Your task to perform on an android device: allow notifications from all sites in the chrome app Image 0: 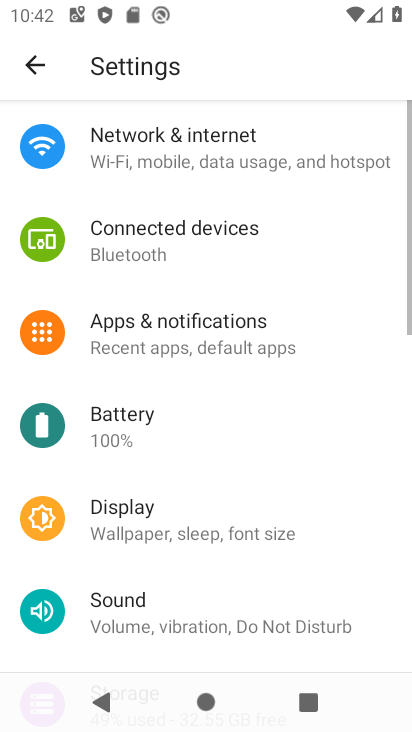
Step 0: drag from (193, 573) to (330, 40)
Your task to perform on an android device: allow notifications from all sites in the chrome app Image 1: 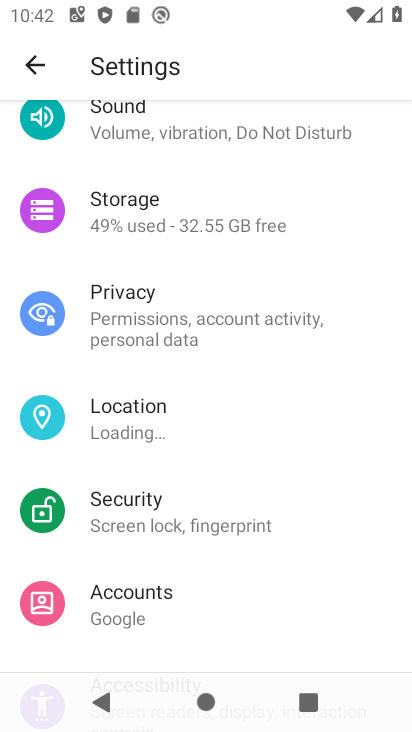
Step 1: click (145, 226)
Your task to perform on an android device: allow notifications from all sites in the chrome app Image 2: 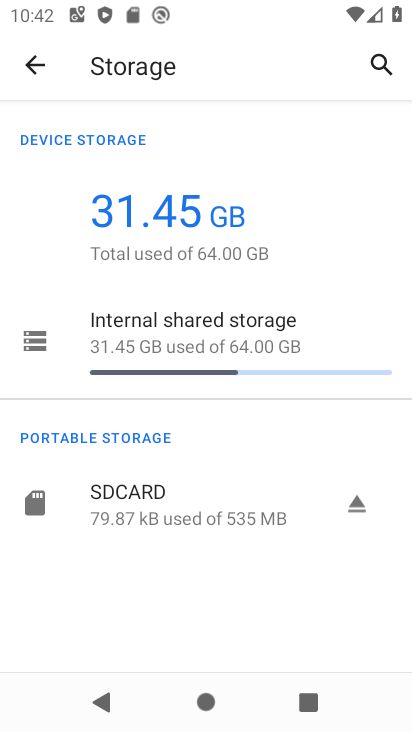
Step 2: press back button
Your task to perform on an android device: allow notifications from all sites in the chrome app Image 3: 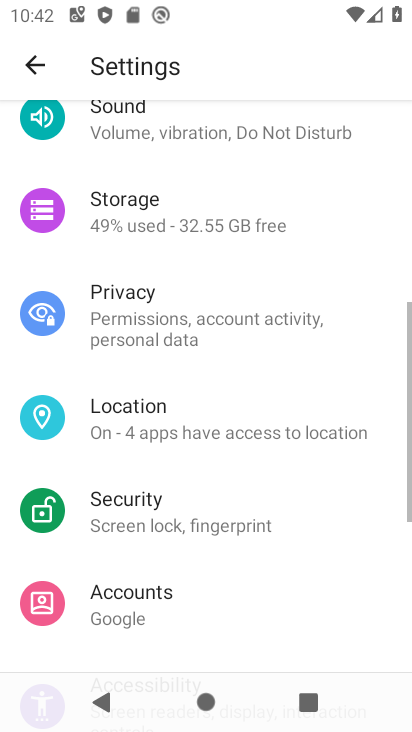
Step 3: press back button
Your task to perform on an android device: allow notifications from all sites in the chrome app Image 4: 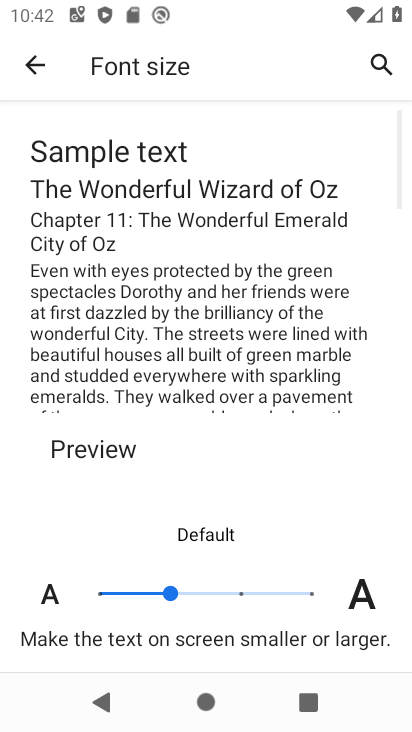
Step 4: press back button
Your task to perform on an android device: allow notifications from all sites in the chrome app Image 5: 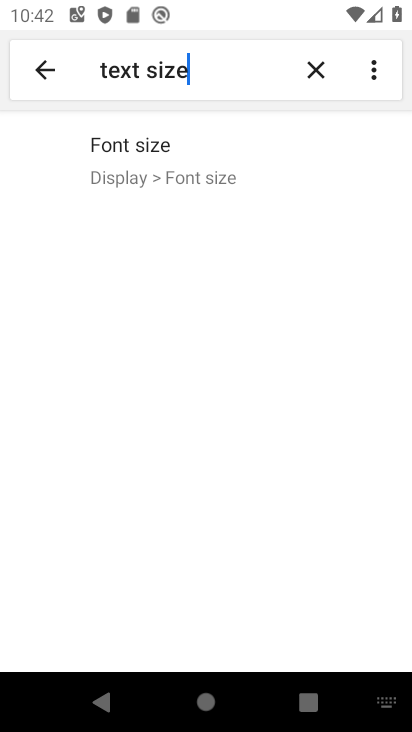
Step 5: press back button
Your task to perform on an android device: allow notifications from all sites in the chrome app Image 6: 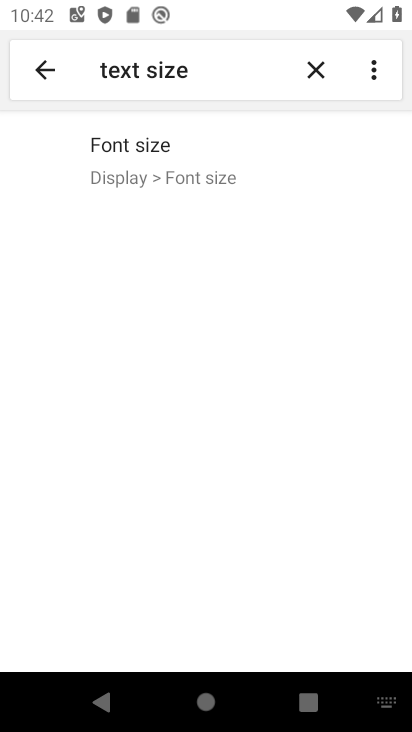
Step 6: press back button
Your task to perform on an android device: allow notifications from all sites in the chrome app Image 7: 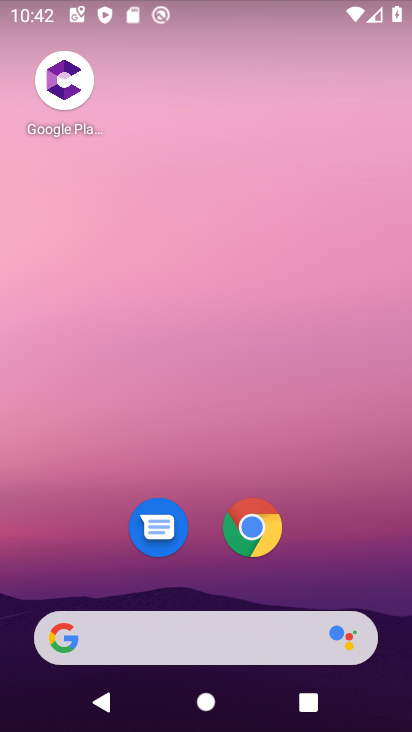
Step 7: click (249, 531)
Your task to perform on an android device: allow notifications from all sites in the chrome app Image 8: 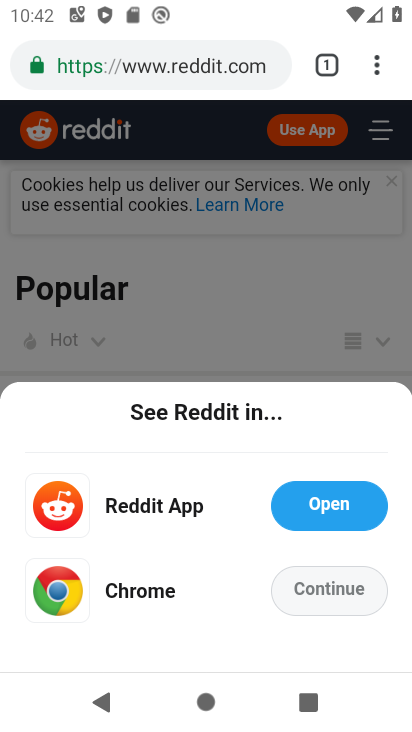
Step 8: drag from (380, 71) to (125, 574)
Your task to perform on an android device: allow notifications from all sites in the chrome app Image 9: 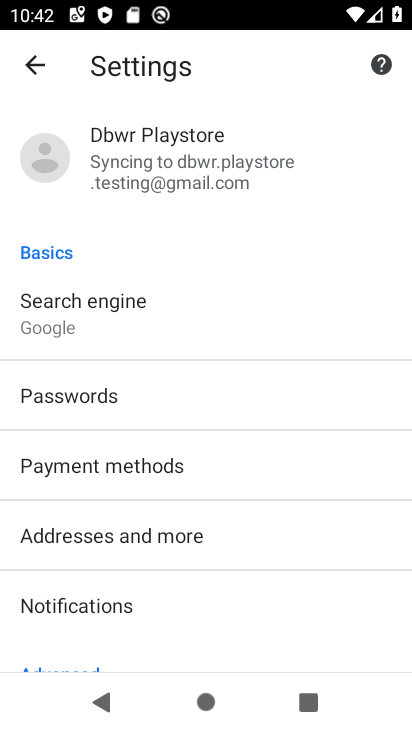
Step 9: drag from (122, 572) to (208, 303)
Your task to perform on an android device: allow notifications from all sites in the chrome app Image 10: 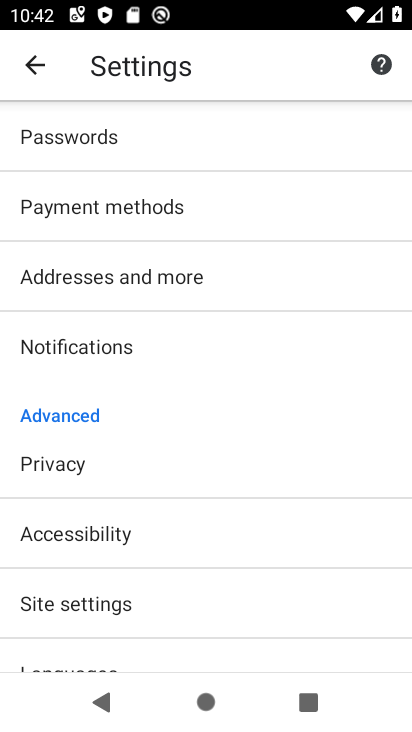
Step 10: click (69, 341)
Your task to perform on an android device: allow notifications from all sites in the chrome app Image 11: 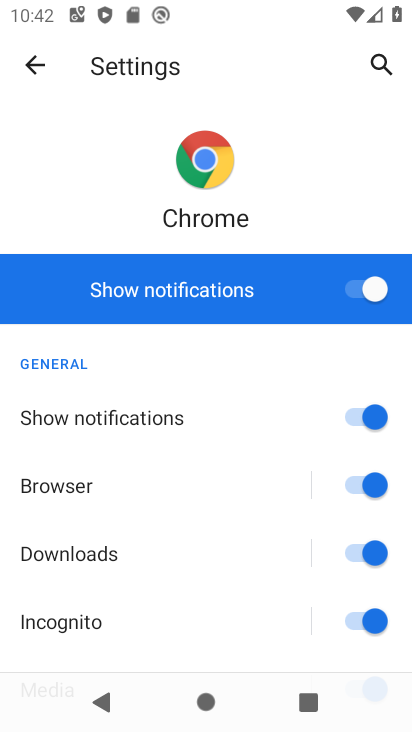
Step 11: task complete